Your task to perform on an android device: install app "HBO Max: Stream TV & Movies" Image 0: 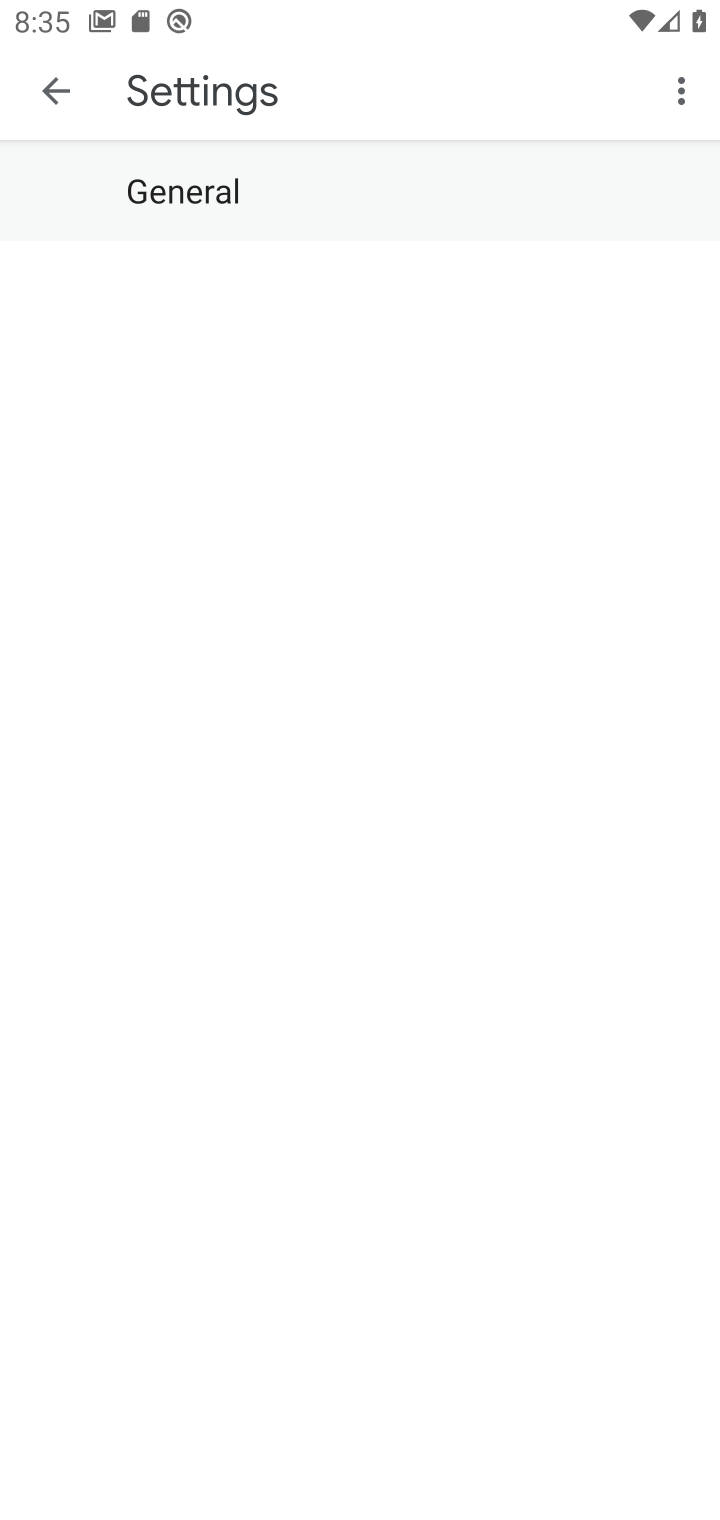
Step 0: press home button
Your task to perform on an android device: install app "HBO Max: Stream TV & Movies" Image 1: 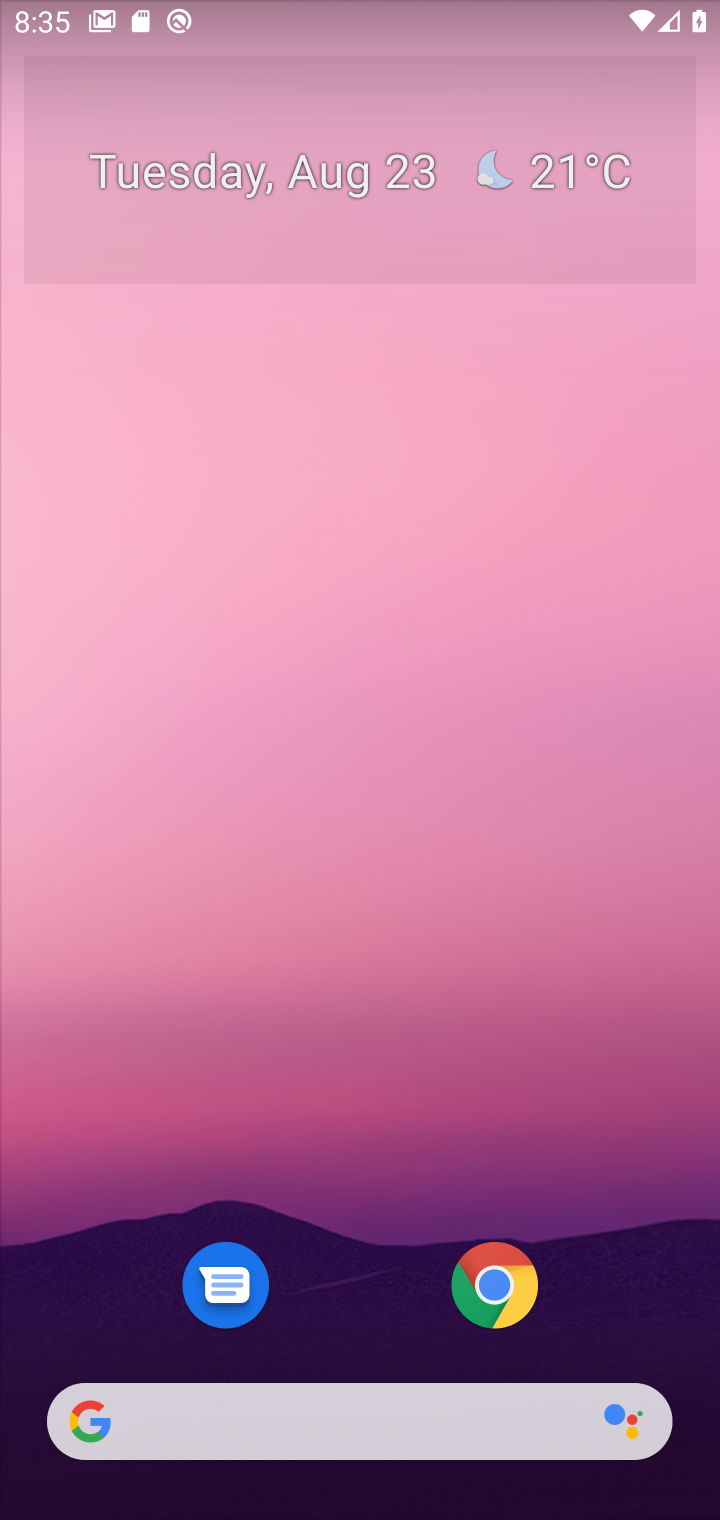
Step 1: drag from (378, 890) to (410, 303)
Your task to perform on an android device: install app "HBO Max: Stream TV & Movies" Image 2: 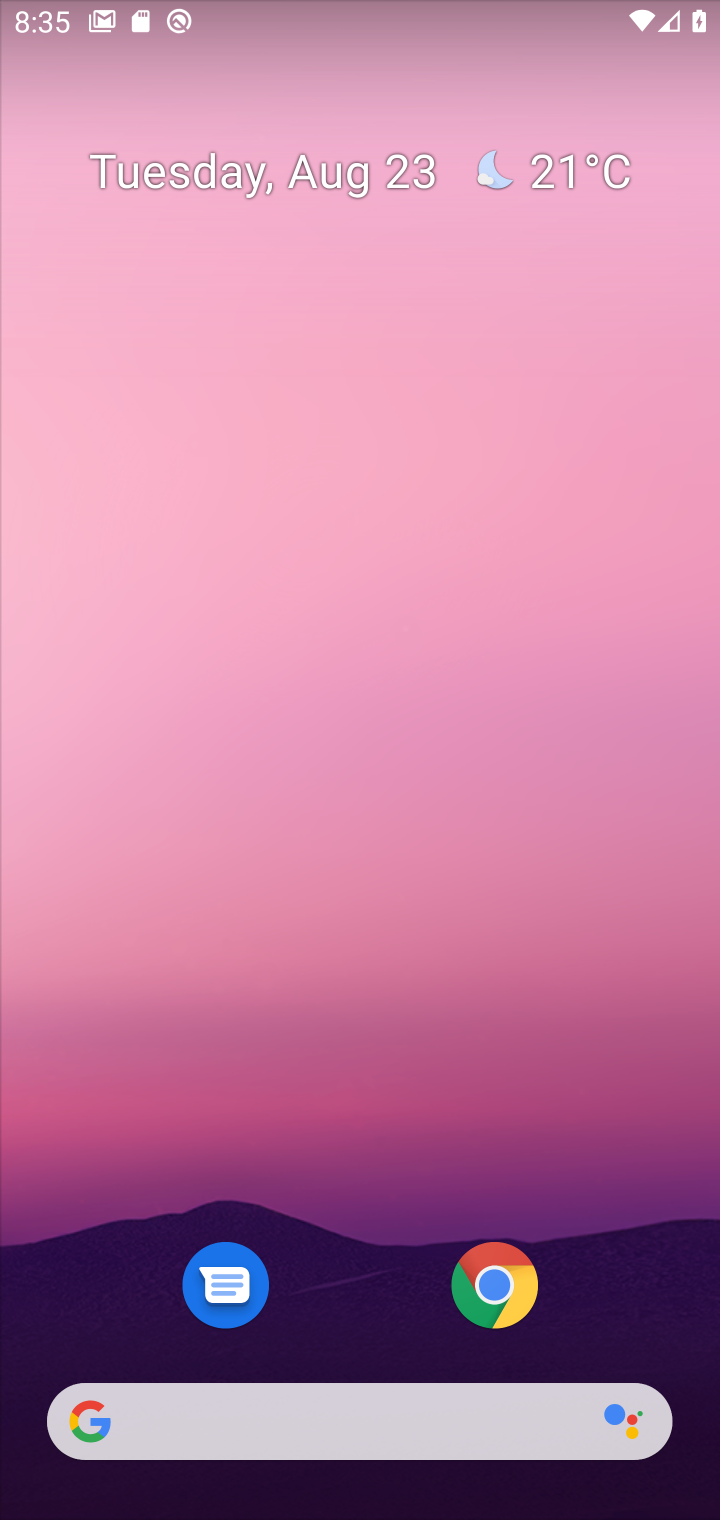
Step 2: drag from (373, 1315) to (368, 177)
Your task to perform on an android device: install app "HBO Max: Stream TV & Movies" Image 3: 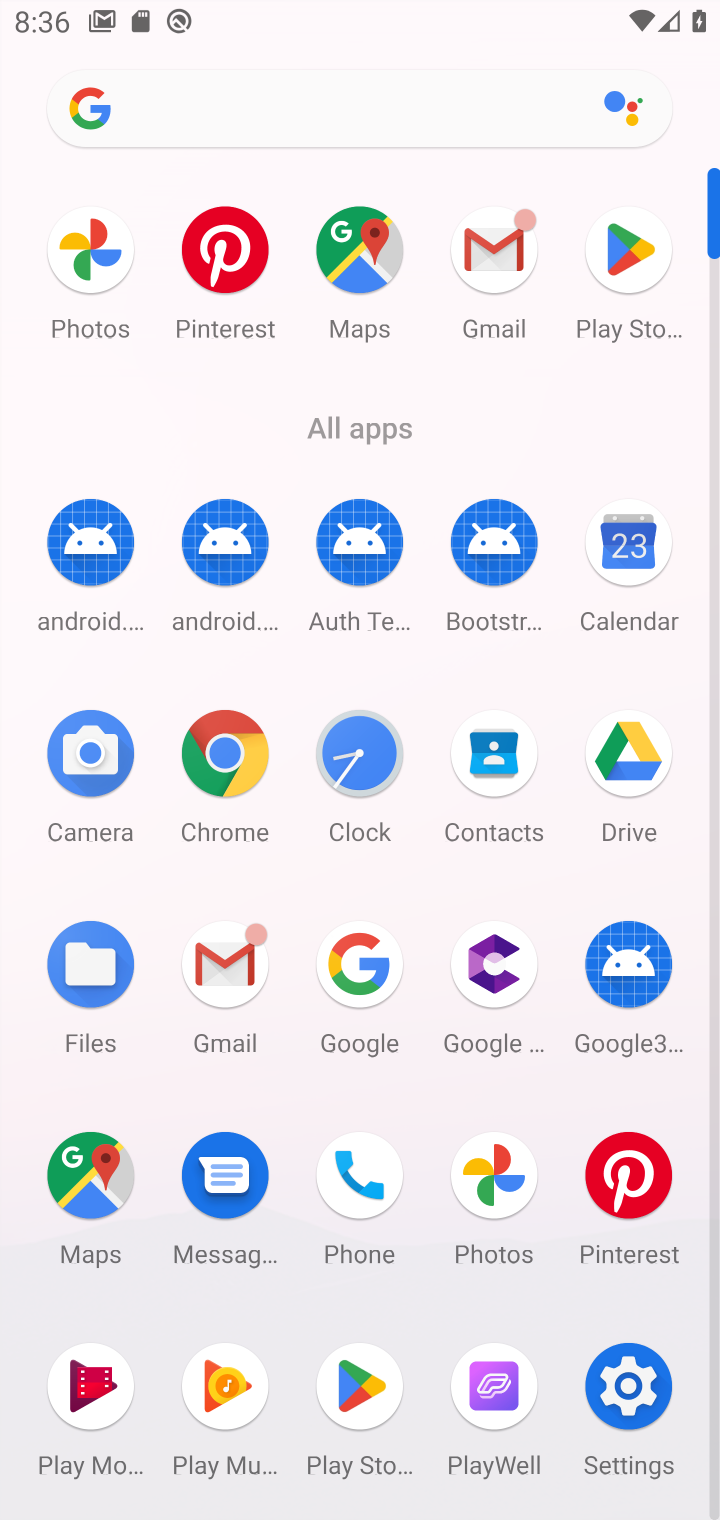
Step 3: click (360, 1378)
Your task to perform on an android device: install app "HBO Max: Stream TV & Movies" Image 4: 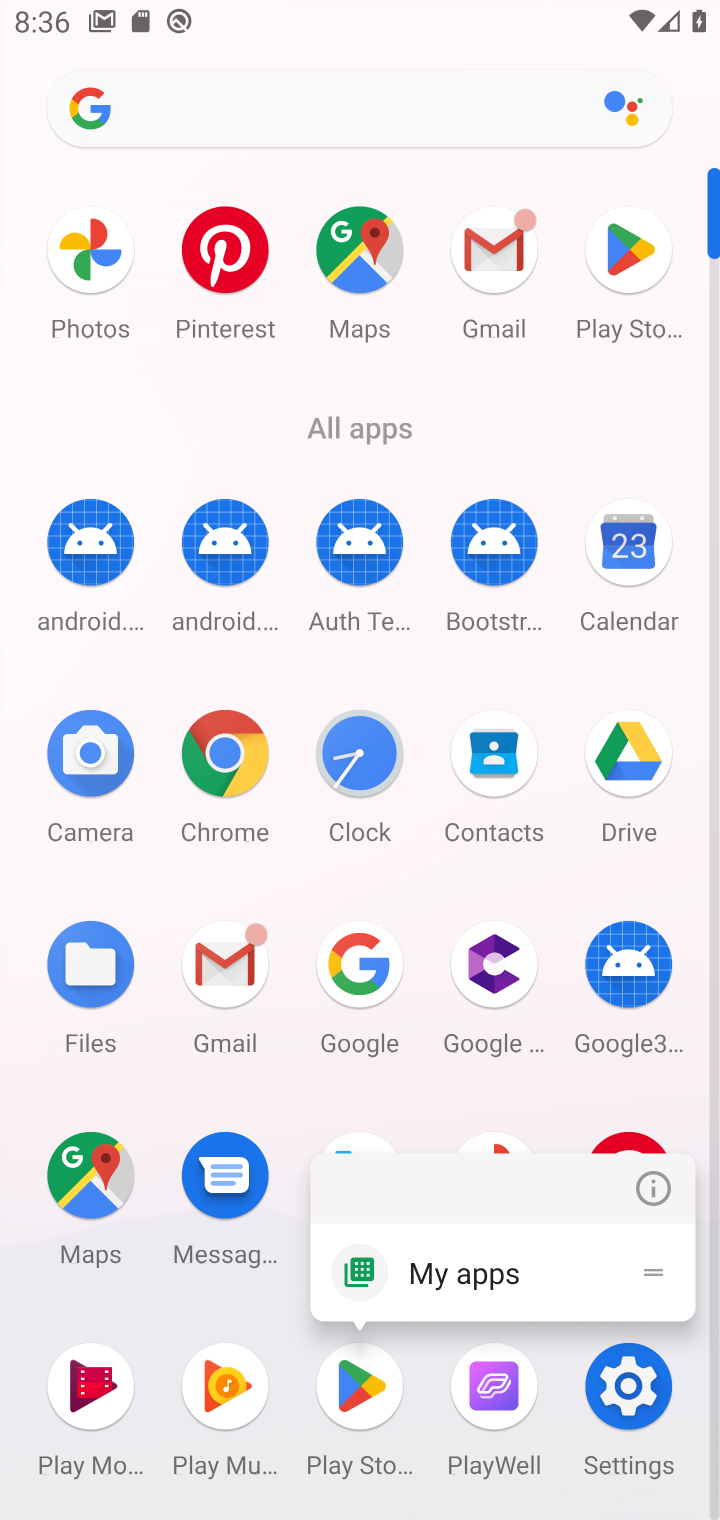
Step 4: click (358, 1389)
Your task to perform on an android device: install app "HBO Max: Stream TV & Movies" Image 5: 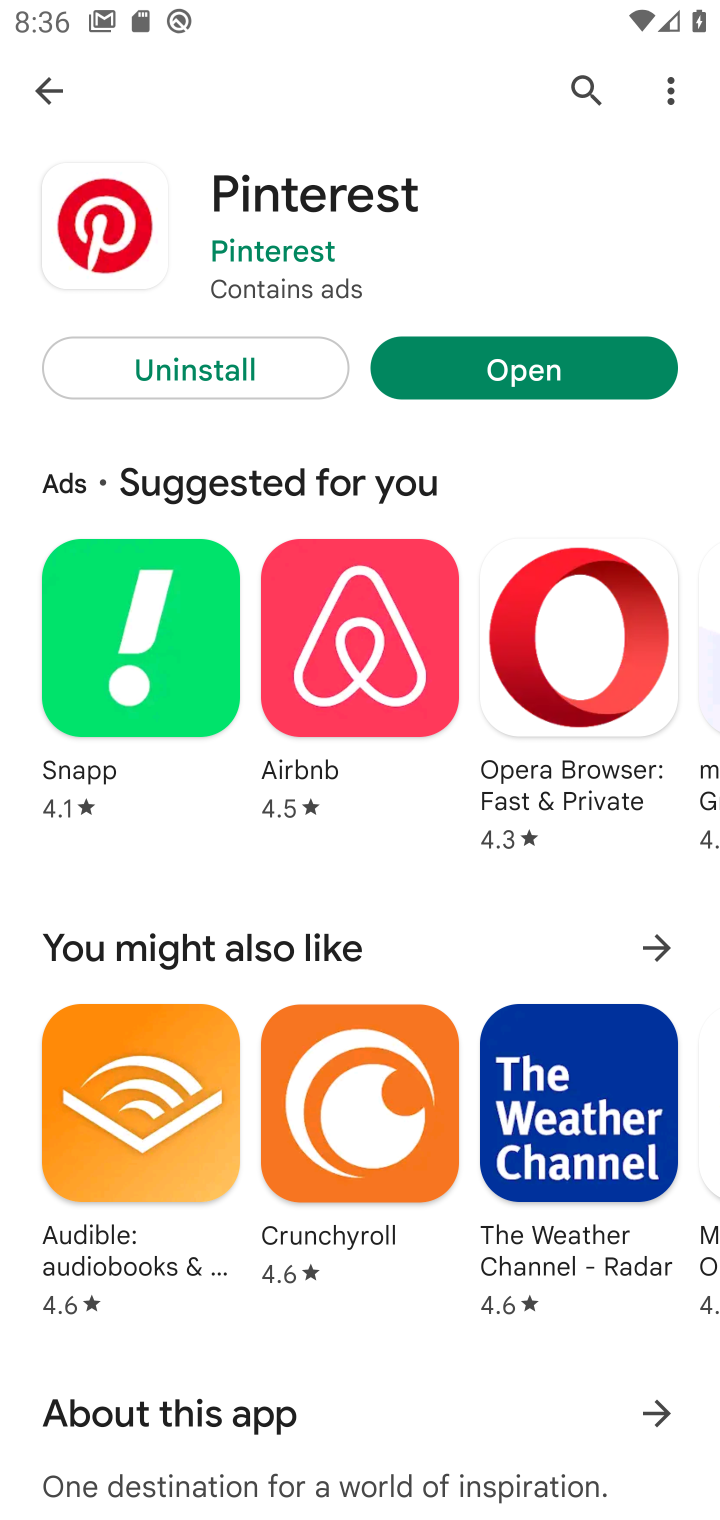
Step 5: click (575, 86)
Your task to perform on an android device: install app "HBO Max: Stream TV & Movies" Image 6: 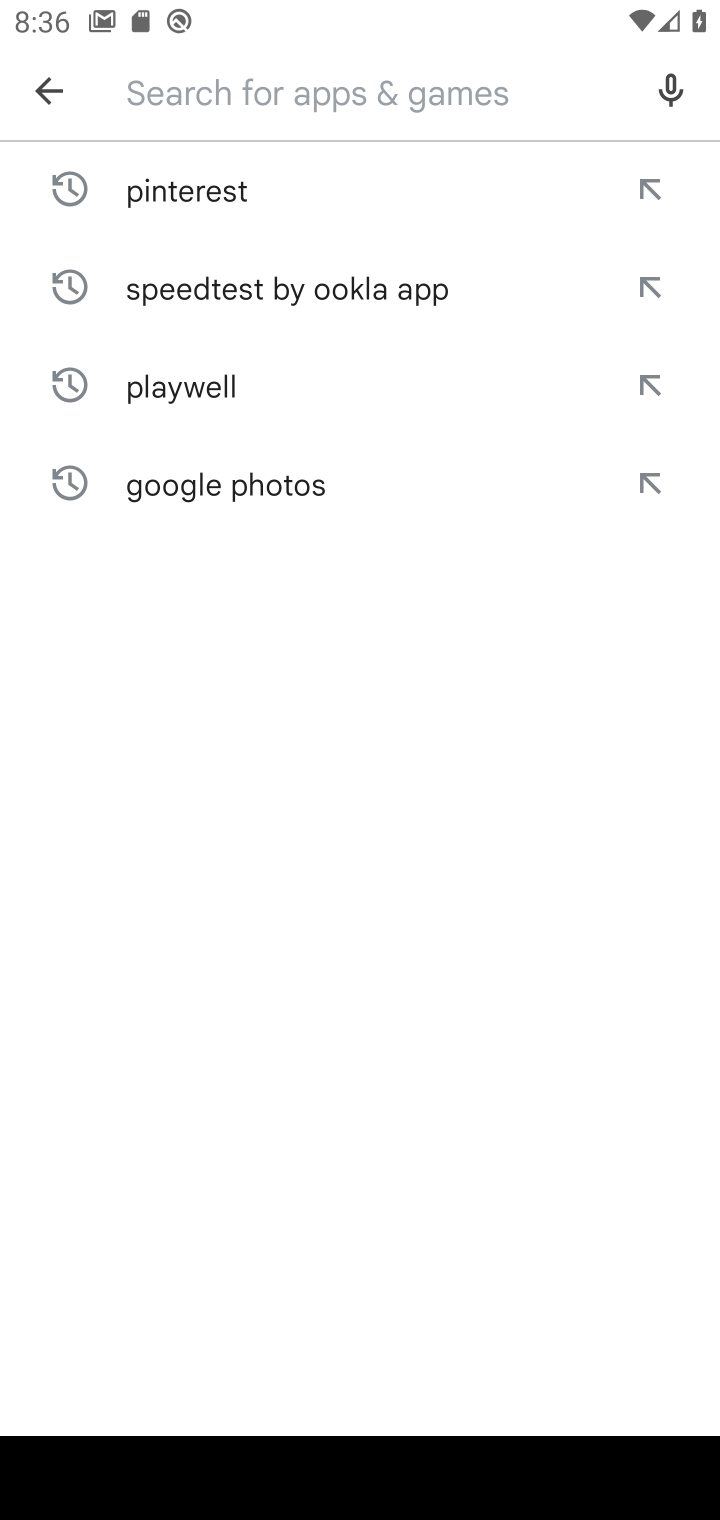
Step 6: type "HBO Max: Stream TV & Movies"
Your task to perform on an android device: install app "HBO Max: Stream TV & Movies" Image 7: 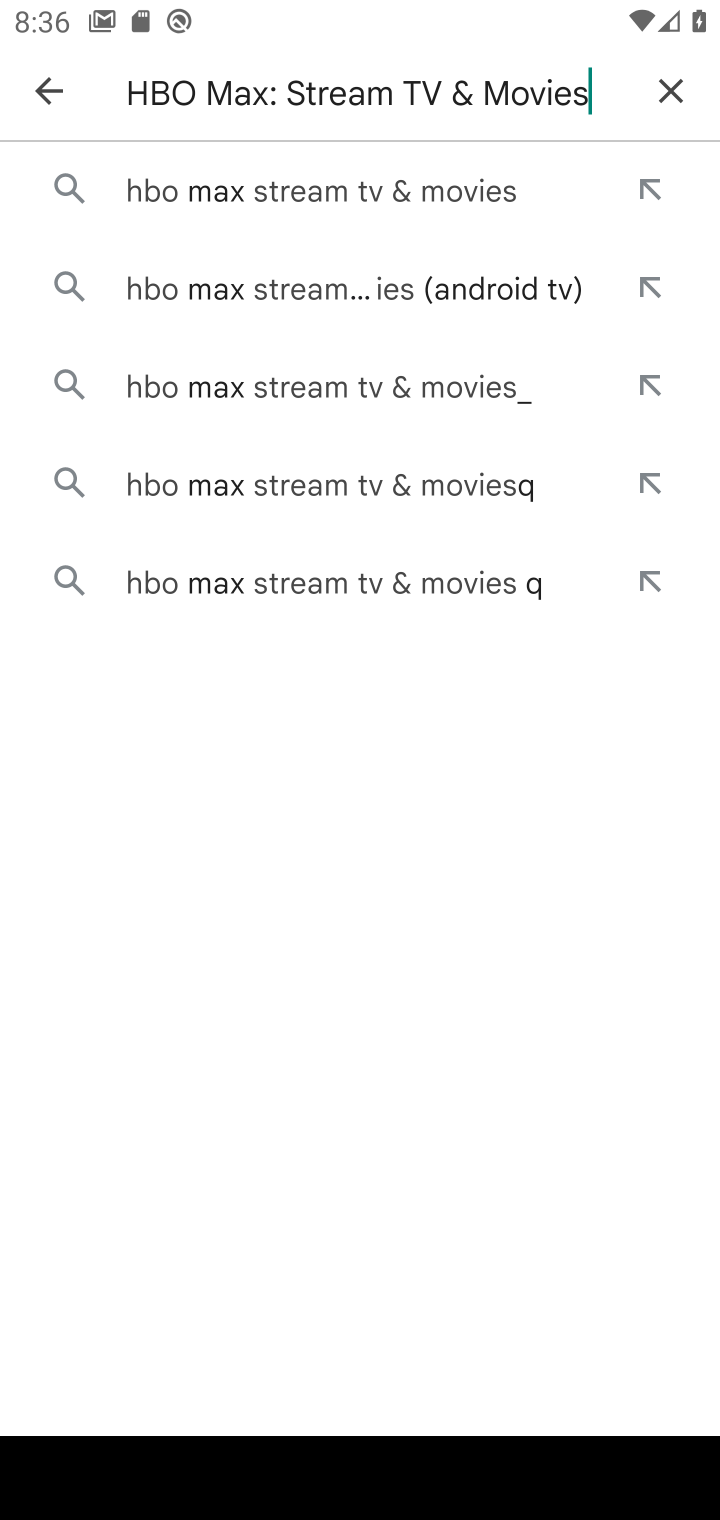
Step 7: click (234, 191)
Your task to perform on an android device: install app "HBO Max: Stream TV & Movies" Image 8: 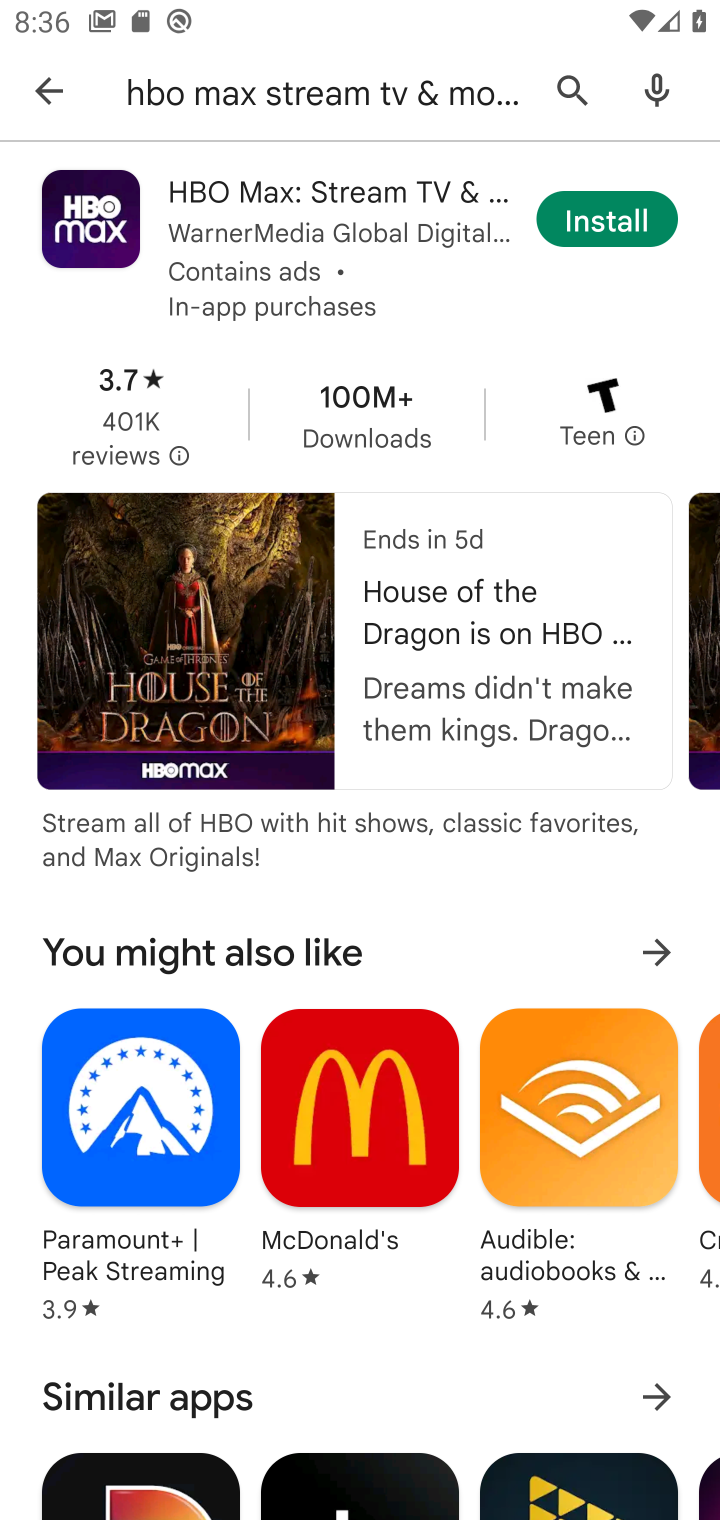
Step 8: click (598, 215)
Your task to perform on an android device: install app "HBO Max: Stream TV & Movies" Image 9: 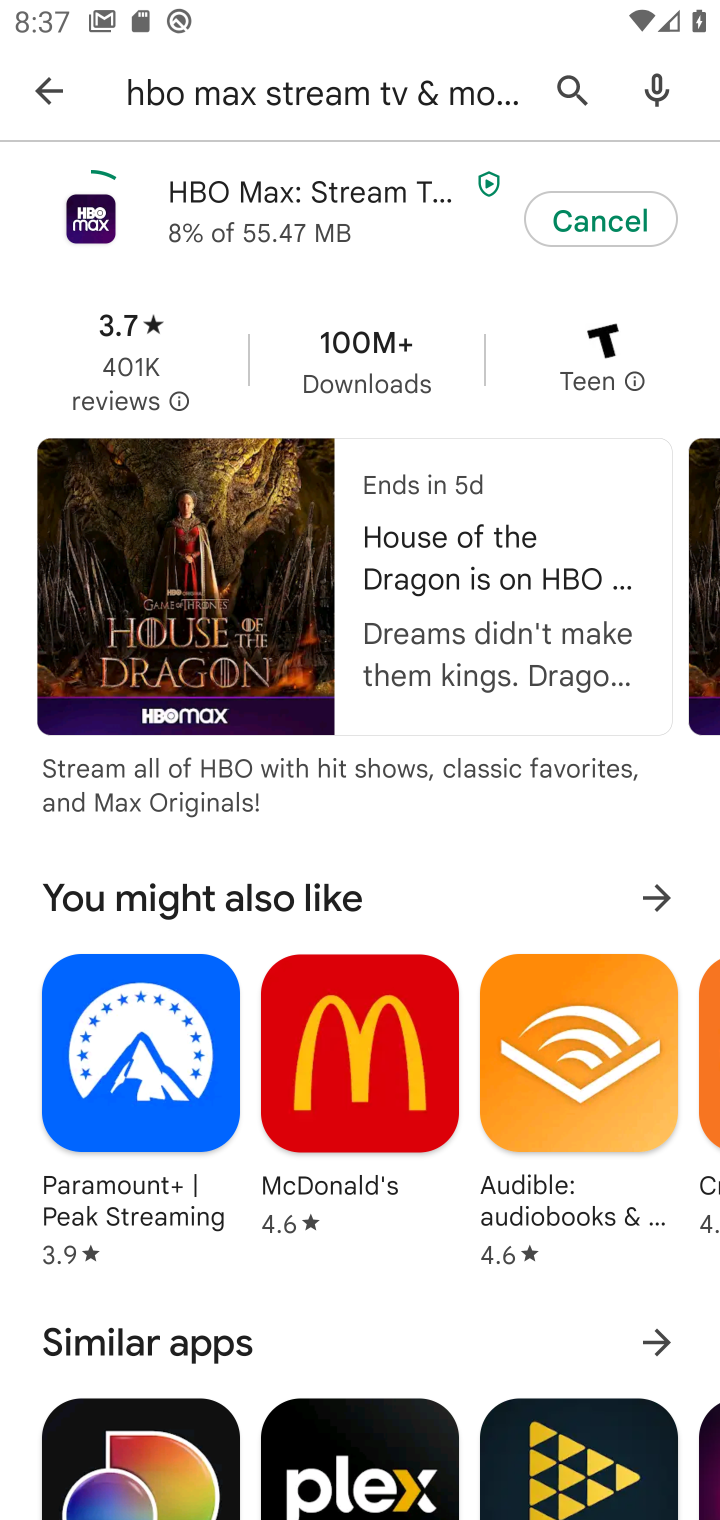
Step 9: click (279, 205)
Your task to perform on an android device: install app "HBO Max: Stream TV & Movies" Image 10: 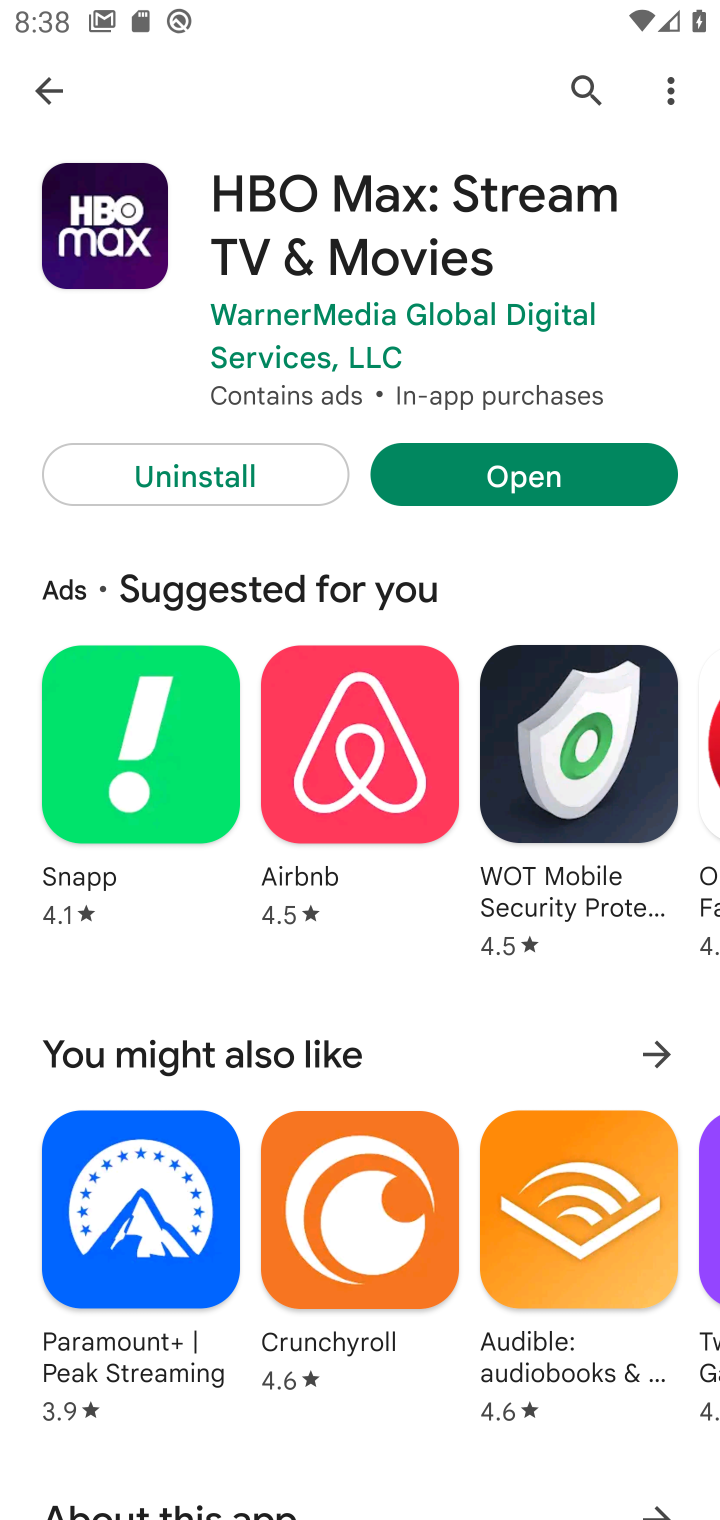
Step 10: task complete